Your task to perform on an android device: Open accessibility settings Image 0: 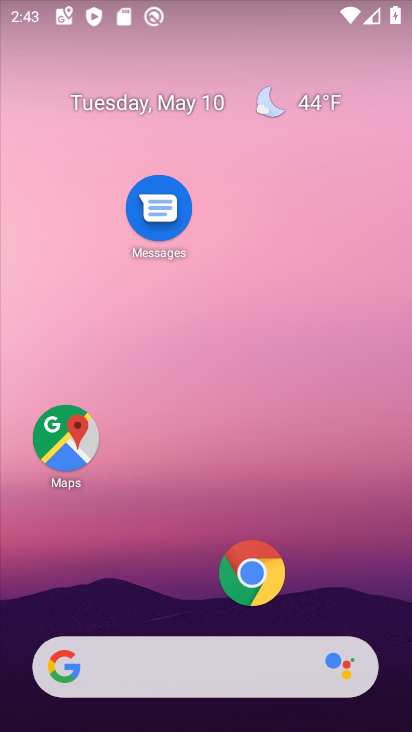
Step 0: drag from (180, 599) to (233, 148)
Your task to perform on an android device: Open accessibility settings Image 1: 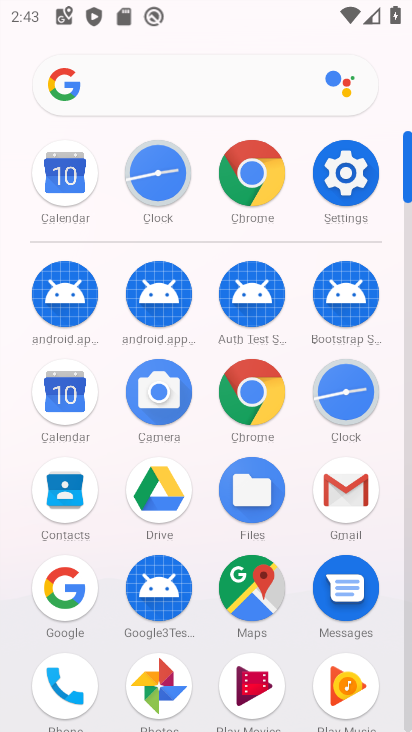
Step 1: click (329, 166)
Your task to perform on an android device: Open accessibility settings Image 2: 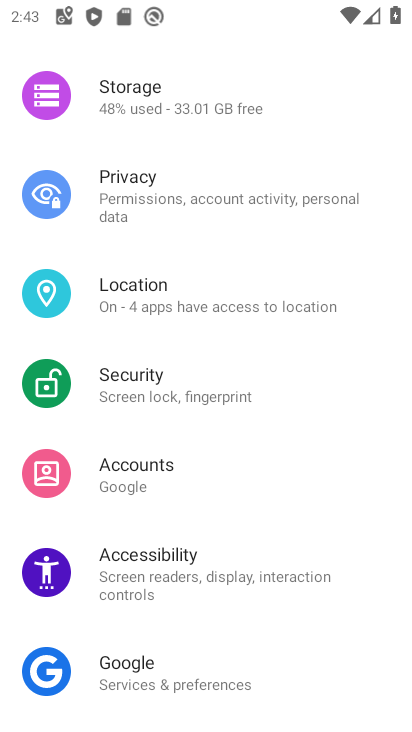
Step 2: click (166, 553)
Your task to perform on an android device: Open accessibility settings Image 3: 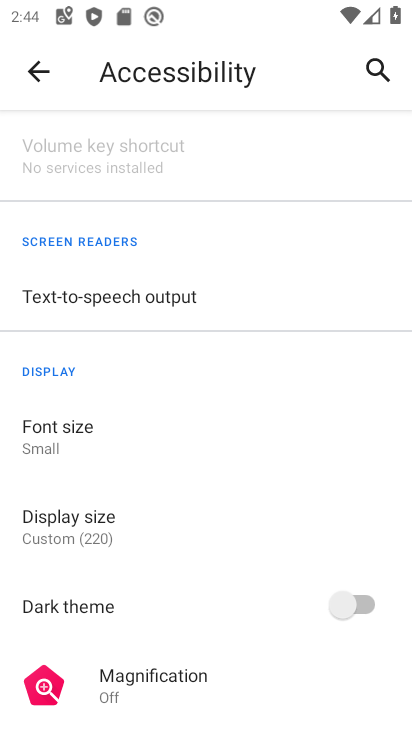
Step 3: task complete